Your task to perform on an android device: turn notification dots on Image 0: 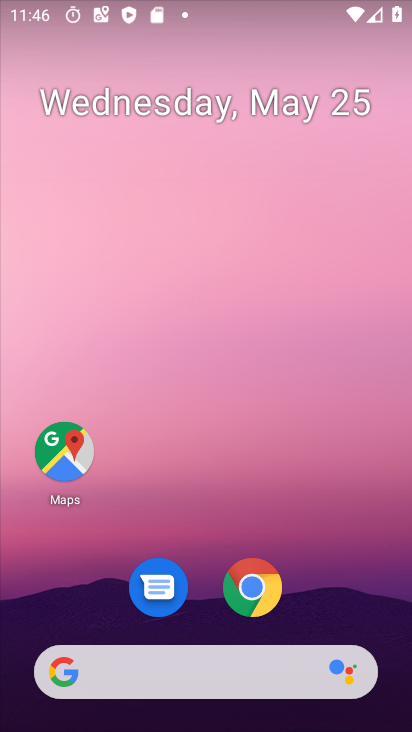
Step 0: drag from (278, 661) to (262, 94)
Your task to perform on an android device: turn notification dots on Image 1: 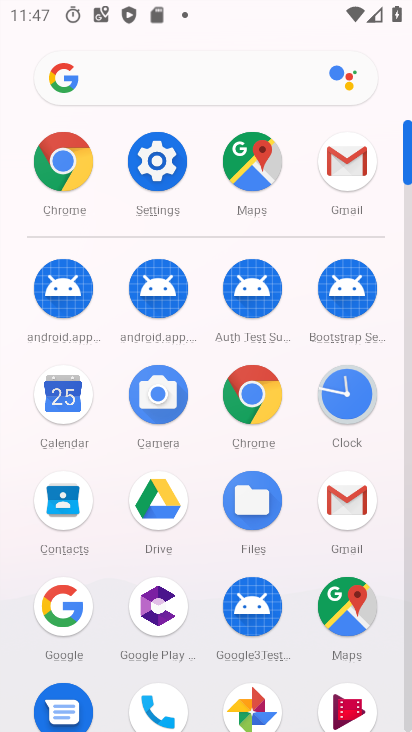
Step 1: click (167, 170)
Your task to perform on an android device: turn notification dots on Image 2: 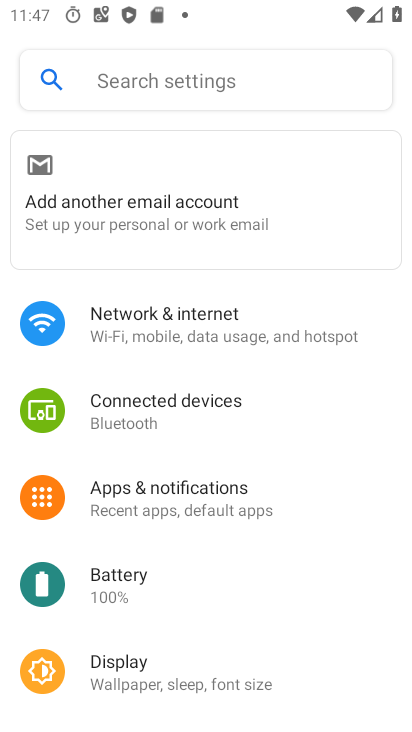
Step 2: click (169, 82)
Your task to perform on an android device: turn notification dots on Image 3: 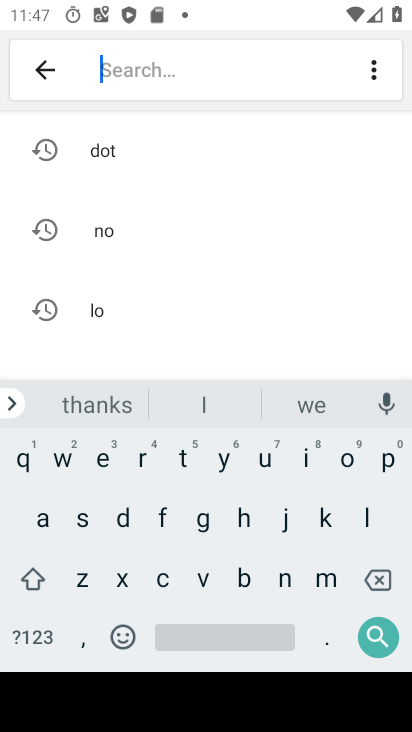
Step 3: click (118, 511)
Your task to perform on an android device: turn notification dots on Image 4: 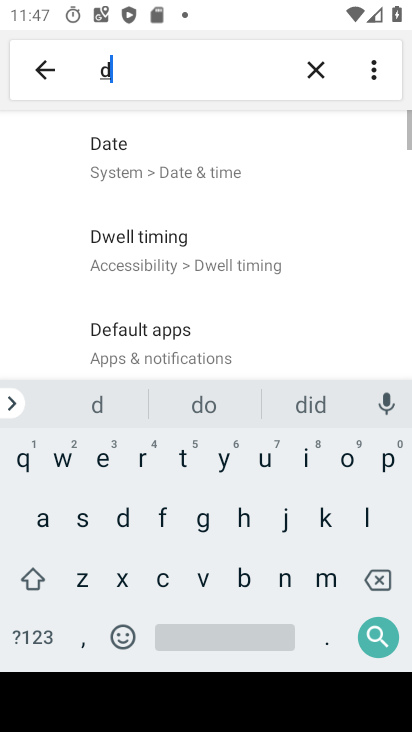
Step 4: click (346, 465)
Your task to perform on an android device: turn notification dots on Image 5: 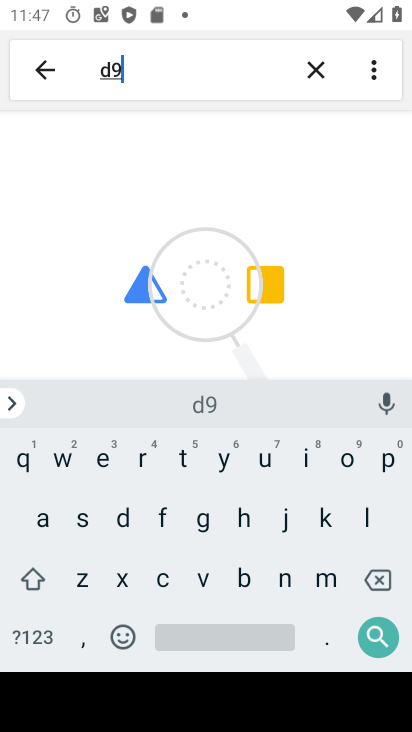
Step 5: click (184, 457)
Your task to perform on an android device: turn notification dots on Image 6: 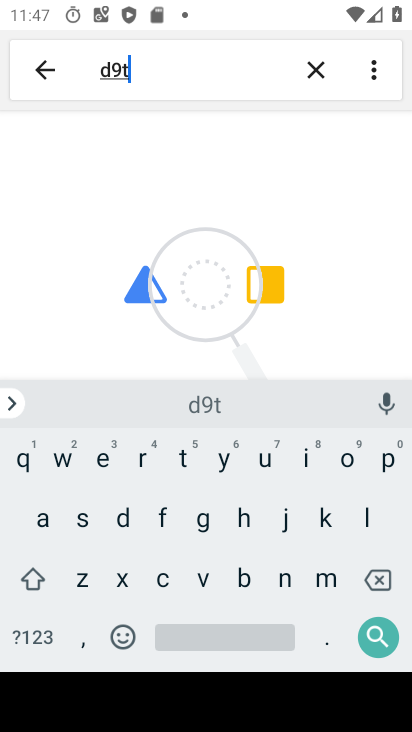
Step 6: click (386, 568)
Your task to perform on an android device: turn notification dots on Image 7: 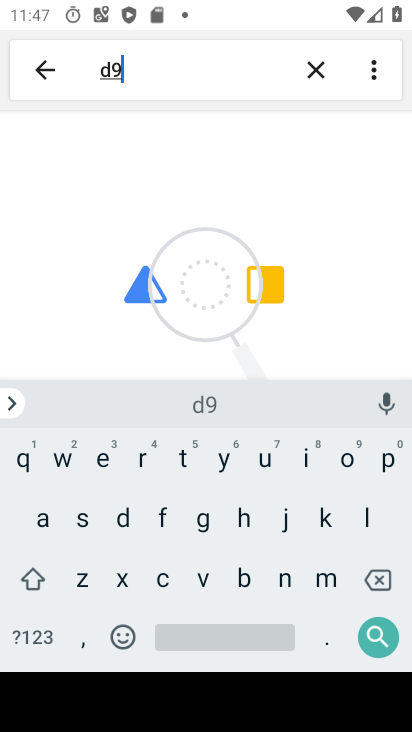
Step 7: click (385, 568)
Your task to perform on an android device: turn notification dots on Image 8: 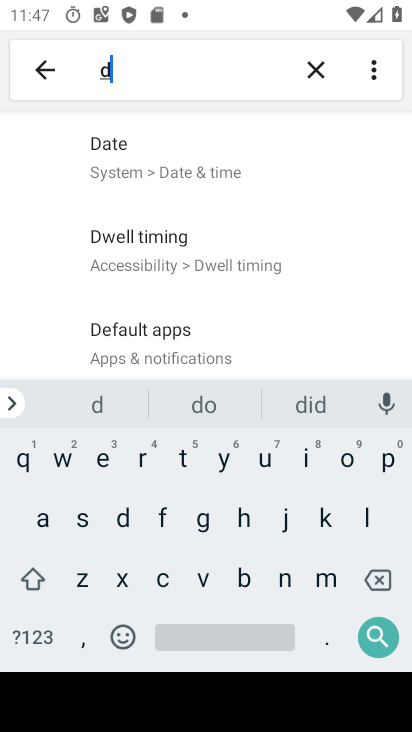
Step 8: click (342, 471)
Your task to perform on an android device: turn notification dots on Image 9: 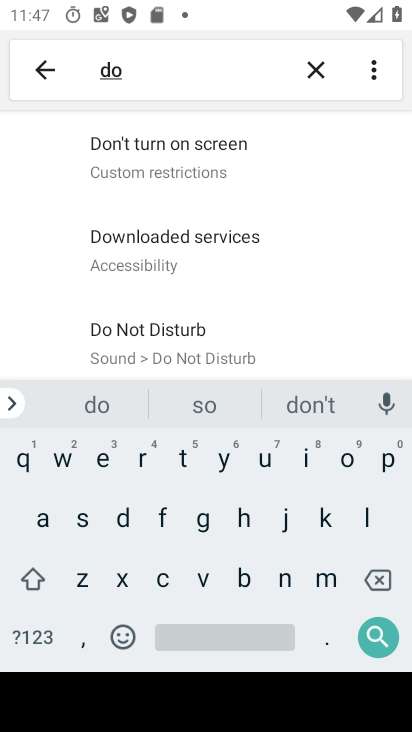
Step 9: click (181, 462)
Your task to perform on an android device: turn notification dots on Image 10: 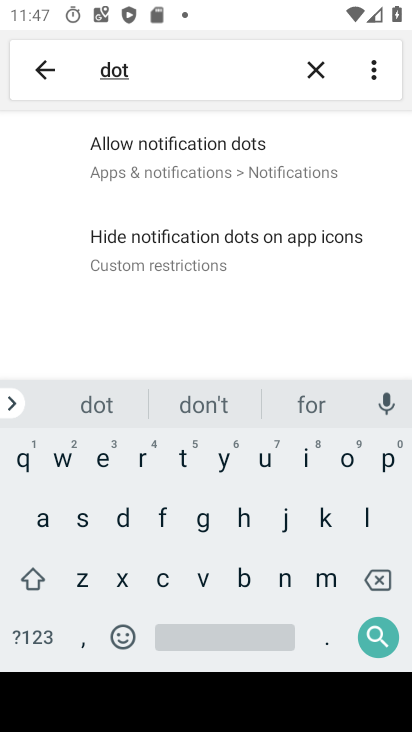
Step 10: click (193, 176)
Your task to perform on an android device: turn notification dots on Image 11: 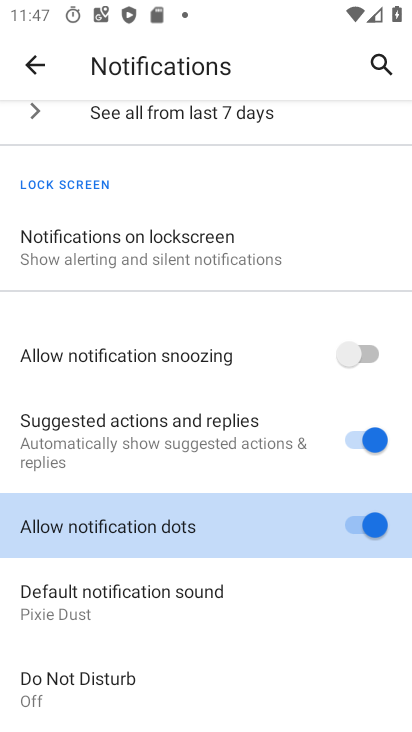
Step 11: task complete